Your task to perform on an android device: change the clock display to digital Image 0: 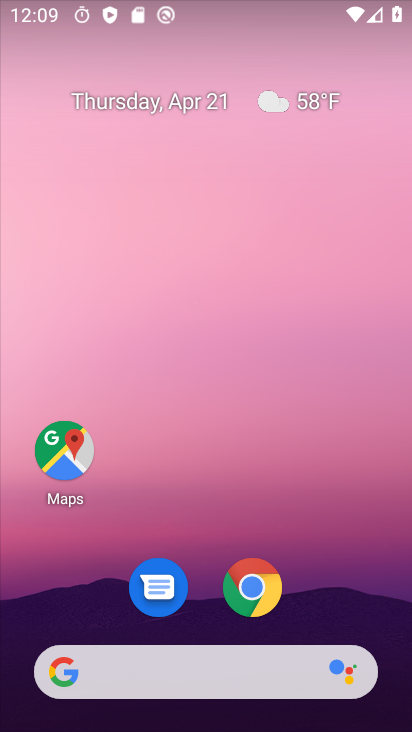
Step 0: drag from (209, 579) to (275, 127)
Your task to perform on an android device: change the clock display to digital Image 1: 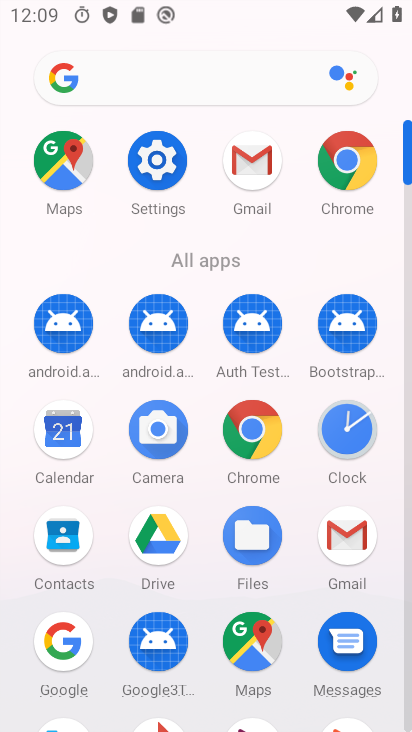
Step 1: click (343, 431)
Your task to perform on an android device: change the clock display to digital Image 2: 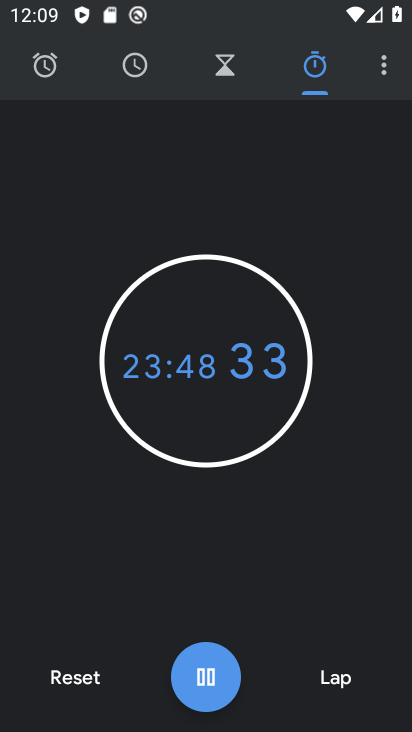
Step 2: click (76, 677)
Your task to perform on an android device: change the clock display to digital Image 3: 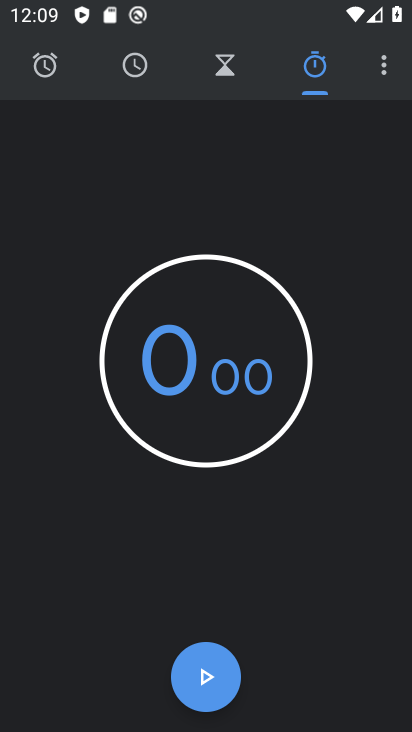
Step 3: click (383, 66)
Your task to perform on an android device: change the clock display to digital Image 4: 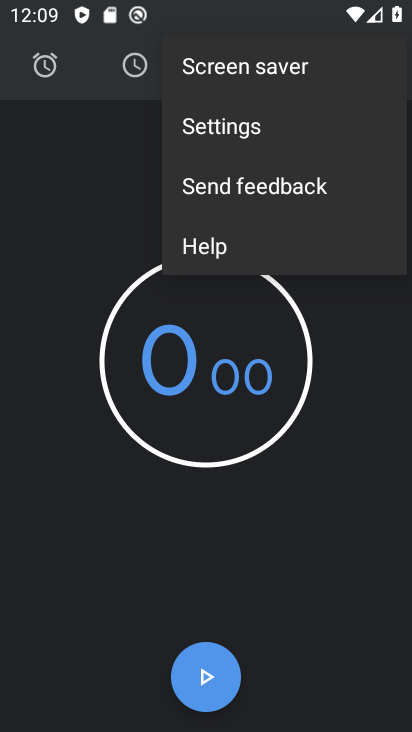
Step 4: click (230, 130)
Your task to perform on an android device: change the clock display to digital Image 5: 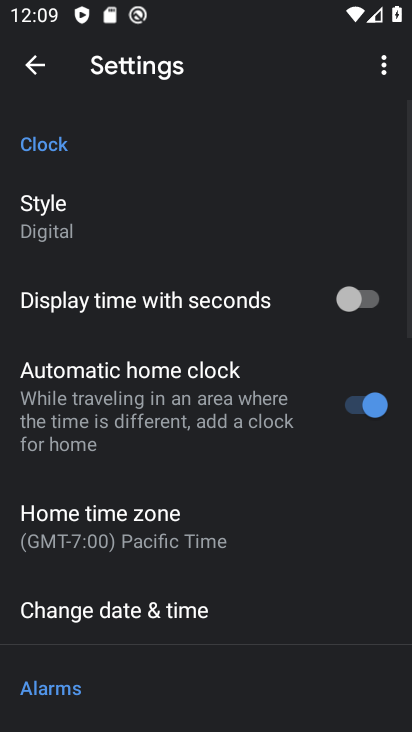
Step 5: click (91, 217)
Your task to perform on an android device: change the clock display to digital Image 6: 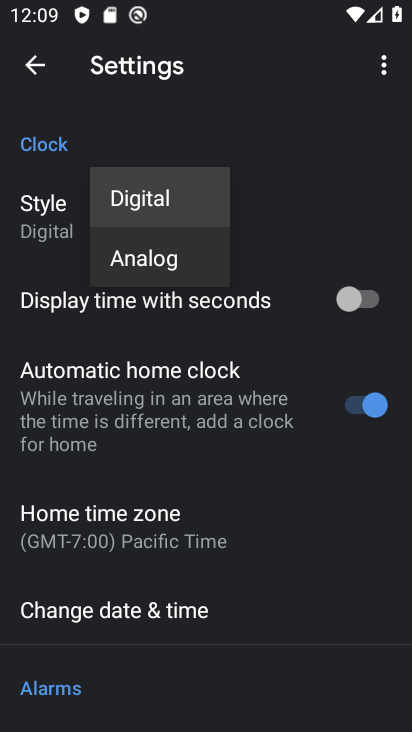
Step 6: task complete